Your task to perform on an android device: Turn on the flashlight Image 0: 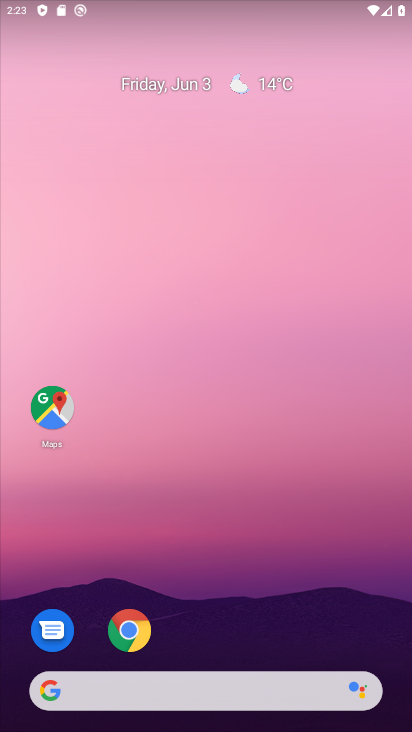
Step 0: drag from (255, 1) to (230, 353)
Your task to perform on an android device: Turn on the flashlight Image 1: 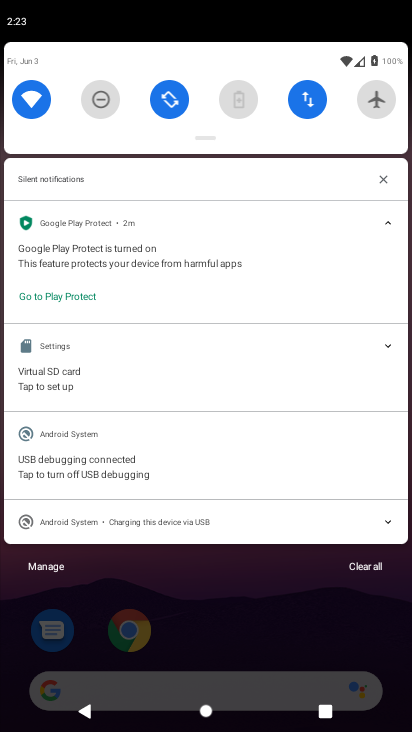
Step 1: drag from (204, 110) to (213, 429)
Your task to perform on an android device: Turn on the flashlight Image 2: 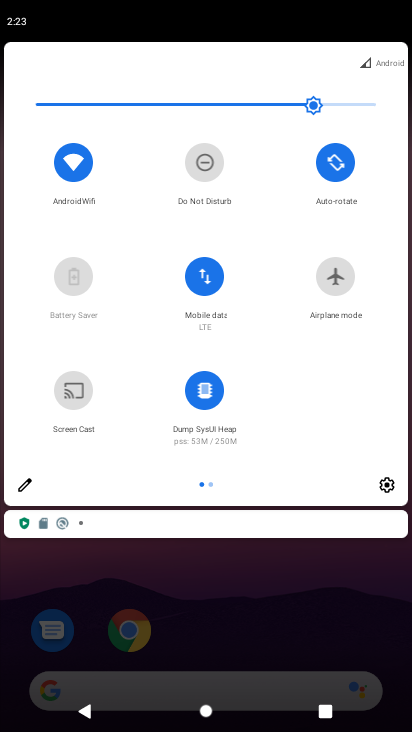
Step 2: click (34, 478)
Your task to perform on an android device: Turn on the flashlight Image 3: 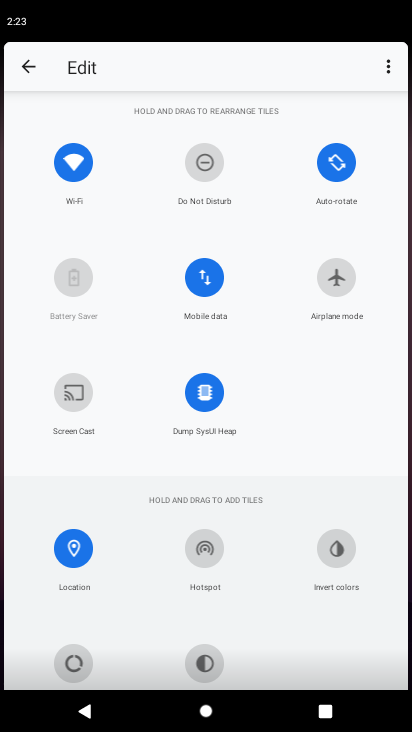
Step 3: task complete